Your task to perform on an android device: Go to Google Image 0: 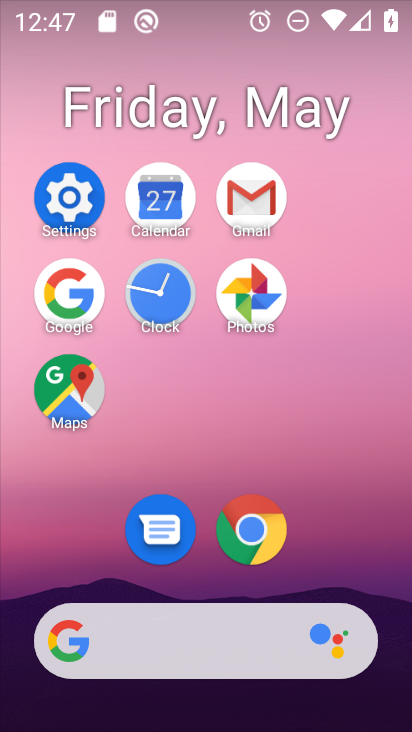
Step 0: click (63, 295)
Your task to perform on an android device: Go to Google Image 1: 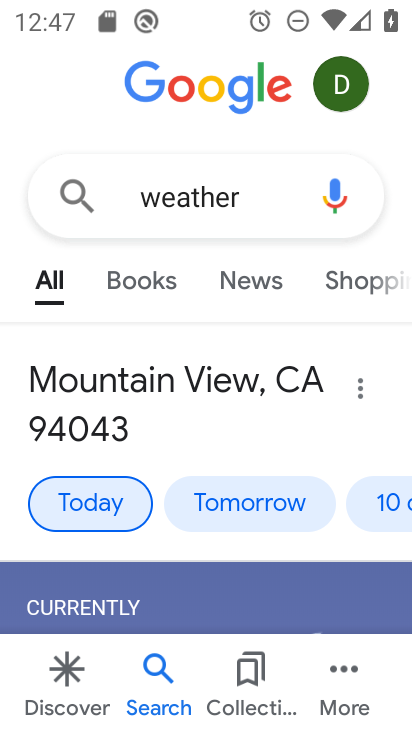
Step 1: task complete